Your task to perform on an android device: move a message to another label in the gmail app Image 0: 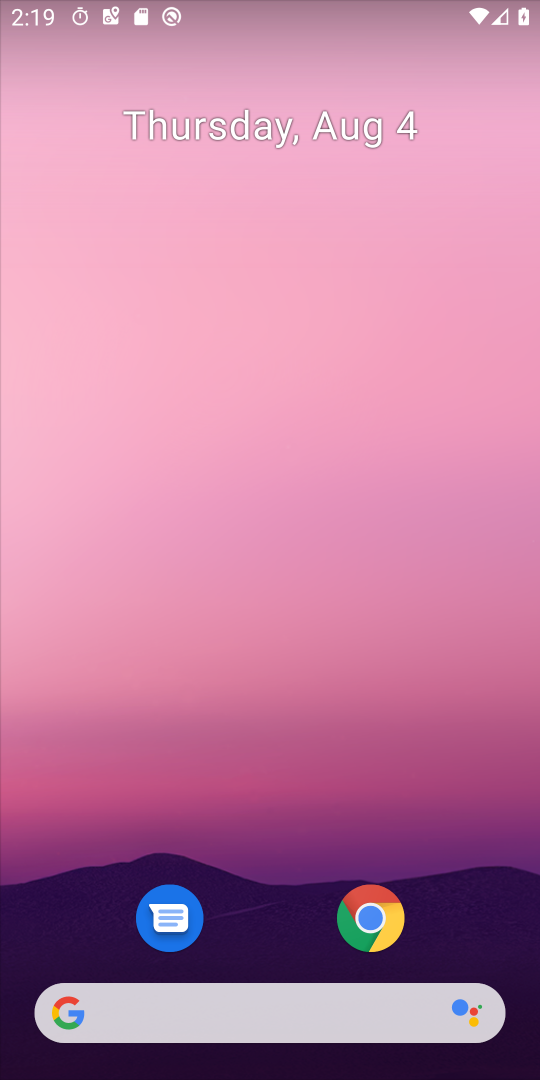
Step 0: drag from (284, 935) to (255, 372)
Your task to perform on an android device: move a message to another label in the gmail app Image 1: 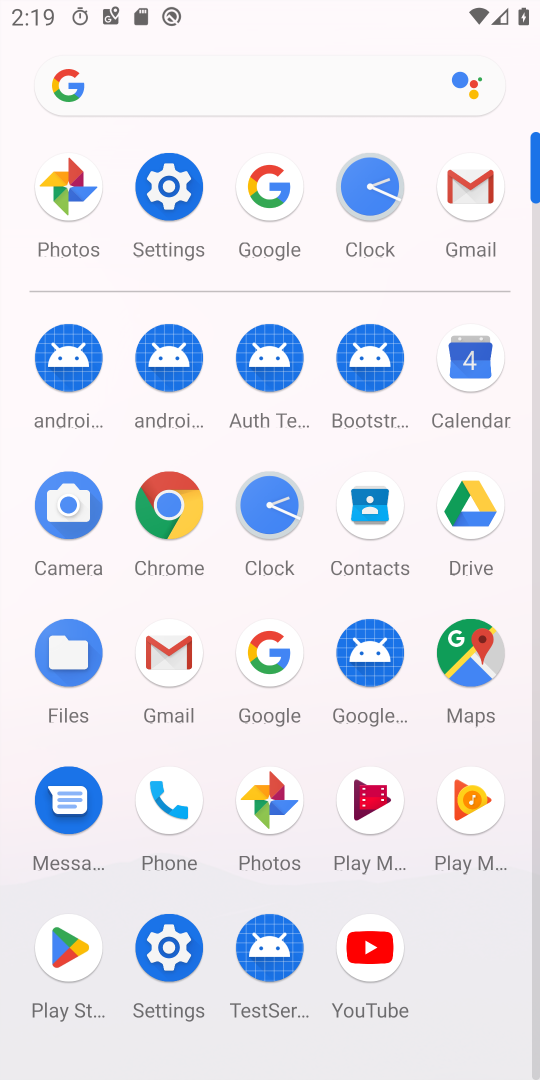
Step 1: click (456, 181)
Your task to perform on an android device: move a message to another label in the gmail app Image 2: 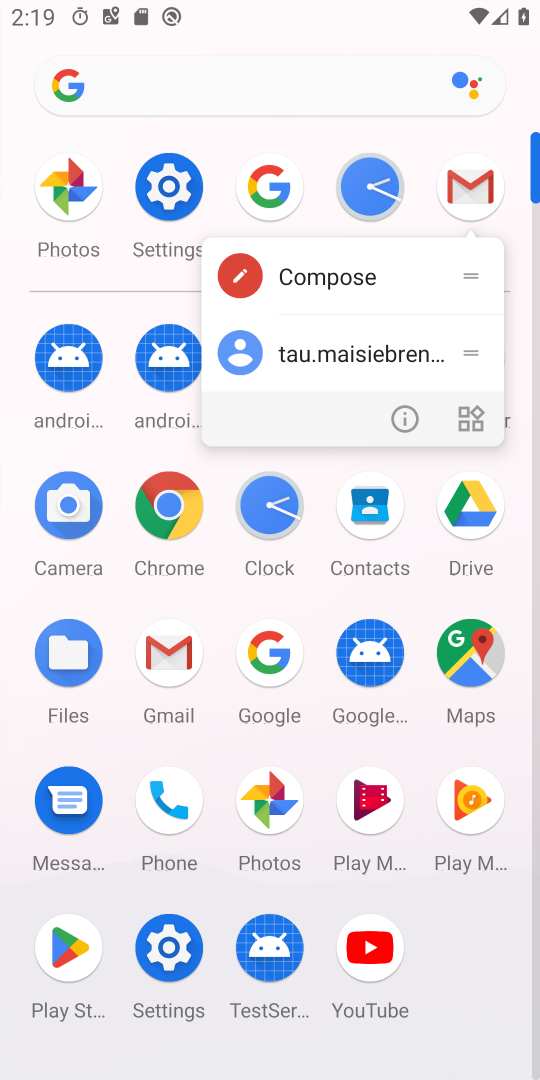
Step 2: click (456, 182)
Your task to perform on an android device: move a message to another label in the gmail app Image 3: 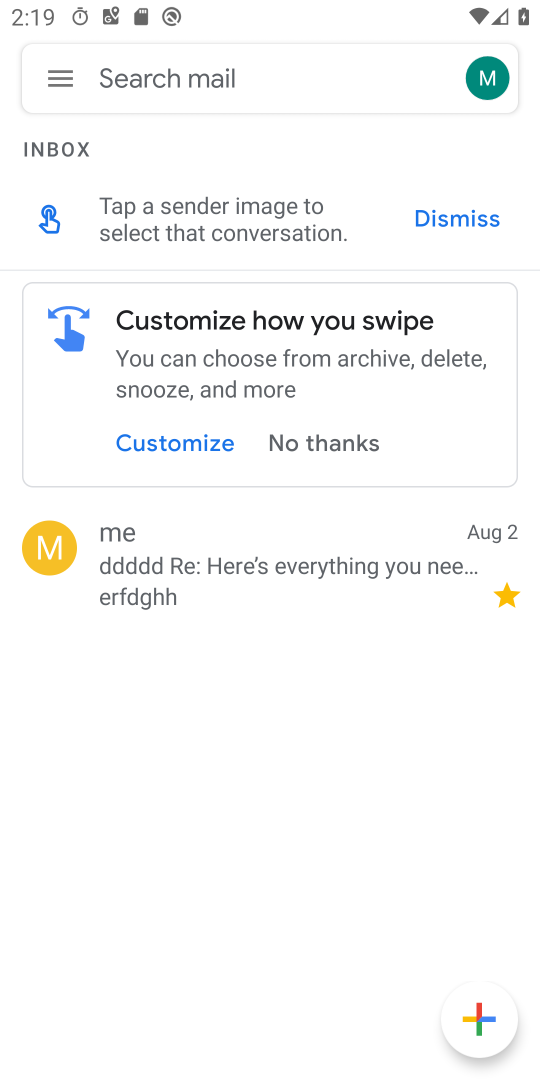
Step 3: click (272, 554)
Your task to perform on an android device: move a message to another label in the gmail app Image 4: 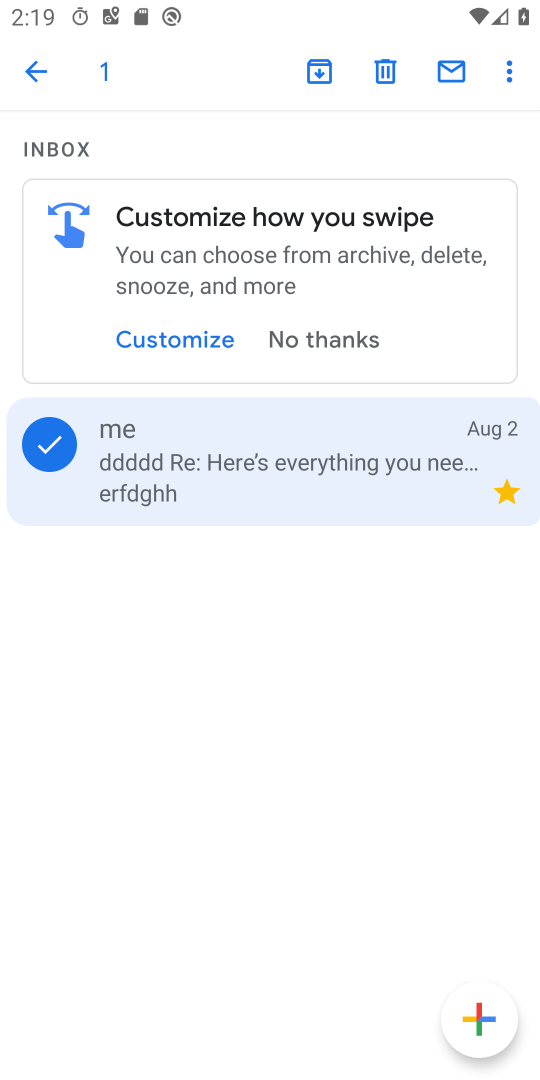
Step 4: click (511, 63)
Your task to perform on an android device: move a message to another label in the gmail app Image 5: 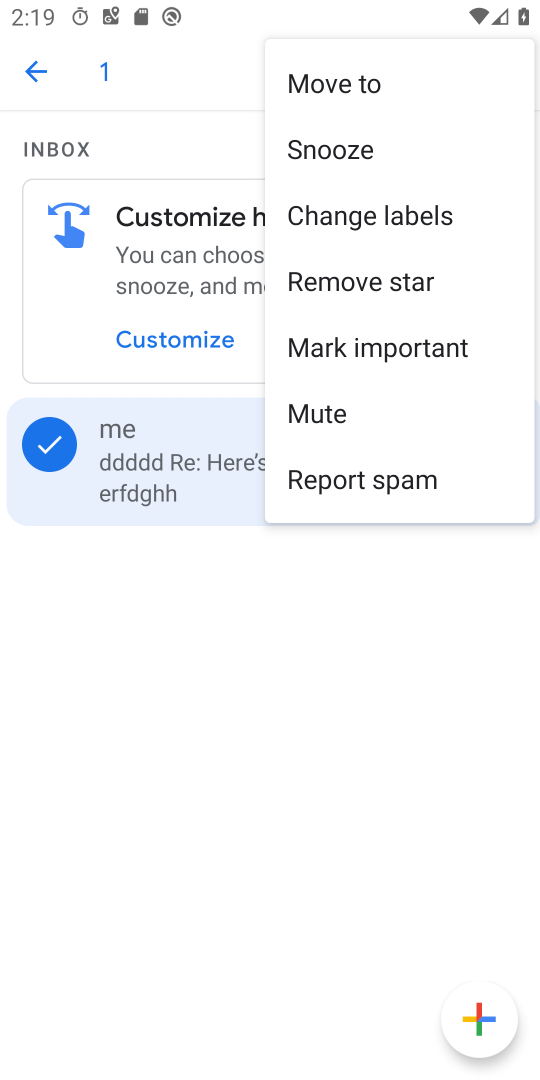
Step 5: click (349, 94)
Your task to perform on an android device: move a message to another label in the gmail app Image 6: 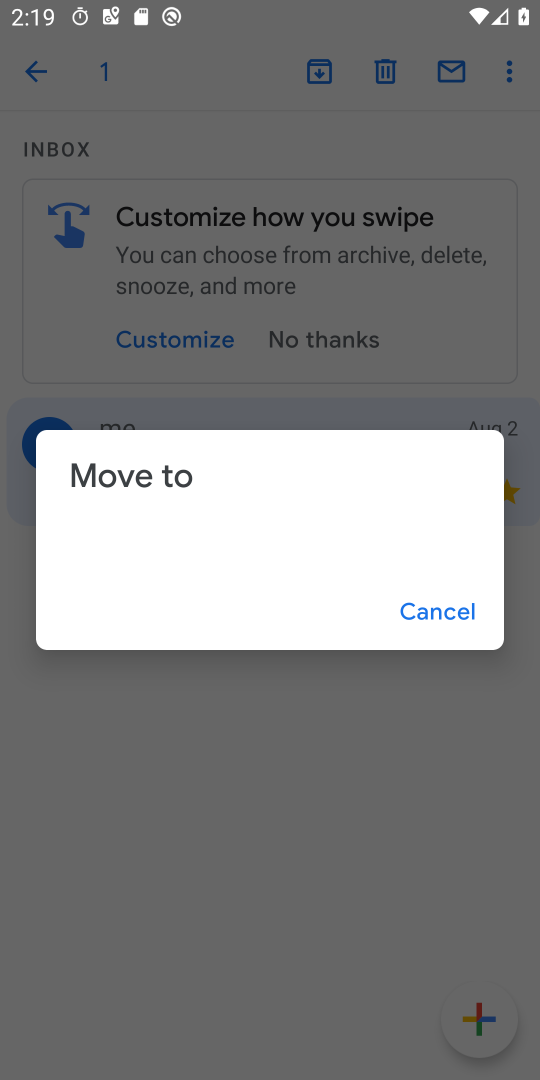
Step 6: click (458, 603)
Your task to perform on an android device: move a message to another label in the gmail app Image 7: 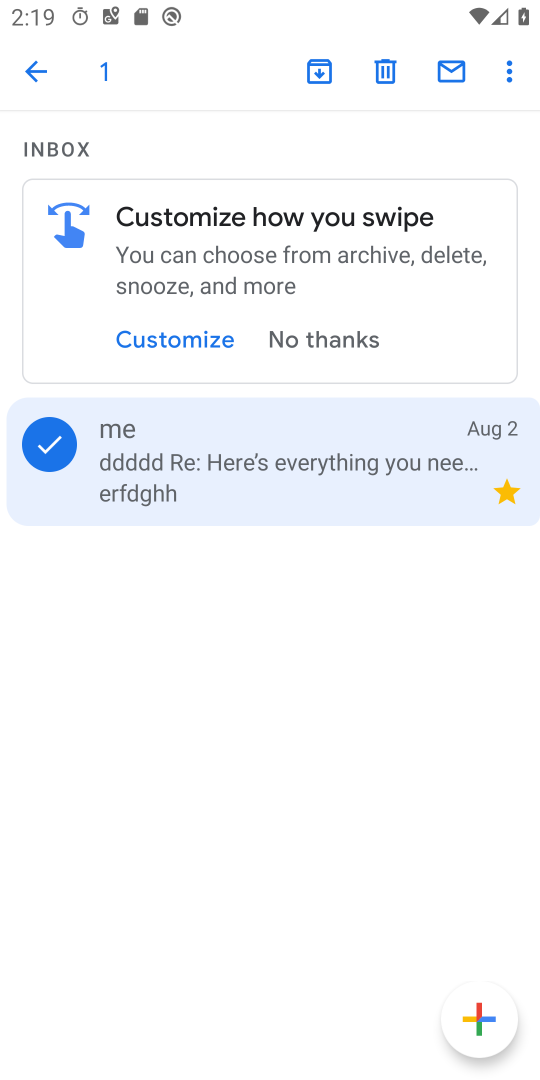
Step 7: task complete